Your task to perform on an android device: make emails show in primary in the gmail app Image 0: 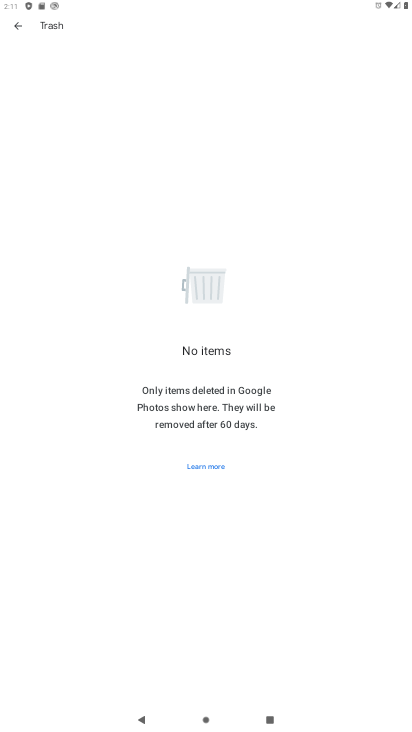
Step 0: press home button
Your task to perform on an android device: make emails show in primary in the gmail app Image 1: 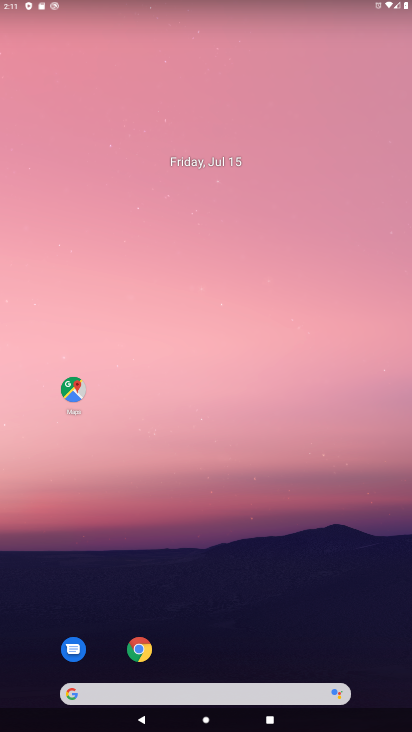
Step 1: drag from (191, 639) to (180, 112)
Your task to perform on an android device: make emails show in primary in the gmail app Image 2: 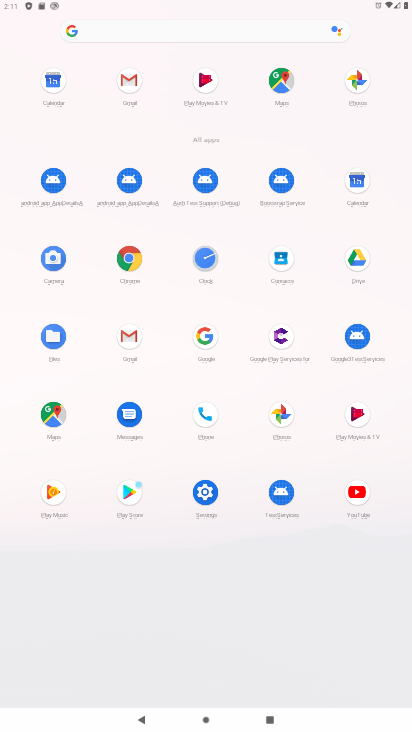
Step 2: click (137, 79)
Your task to perform on an android device: make emails show in primary in the gmail app Image 3: 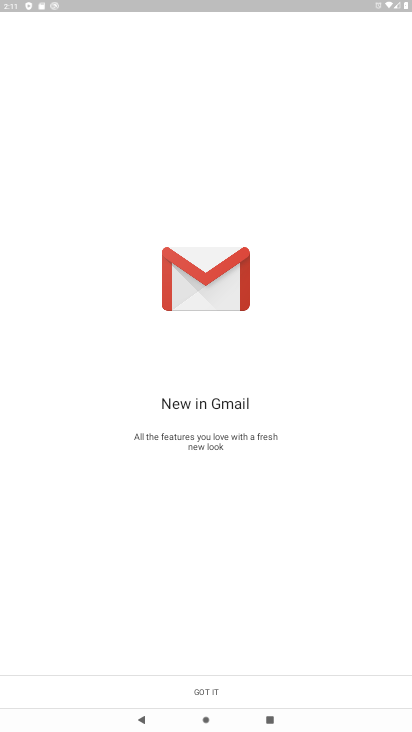
Step 3: click (206, 682)
Your task to perform on an android device: make emails show in primary in the gmail app Image 4: 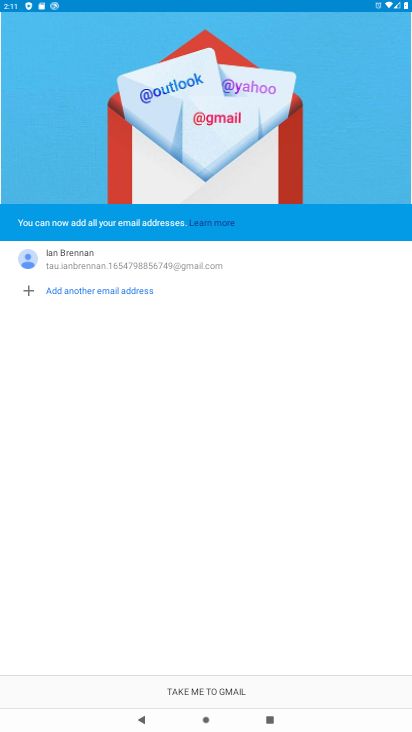
Step 4: click (191, 698)
Your task to perform on an android device: make emails show in primary in the gmail app Image 5: 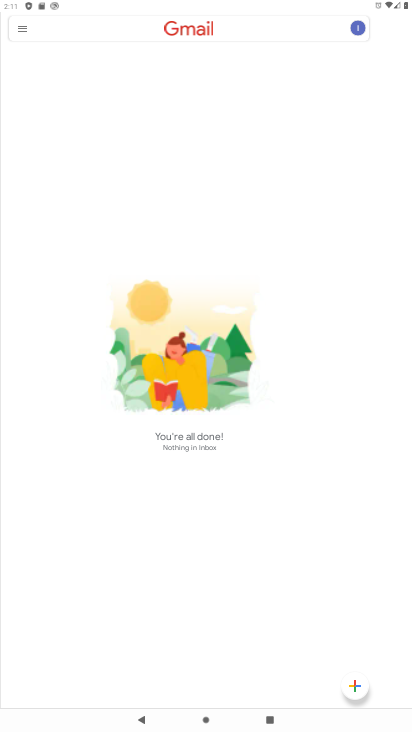
Step 5: click (27, 34)
Your task to perform on an android device: make emails show in primary in the gmail app Image 6: 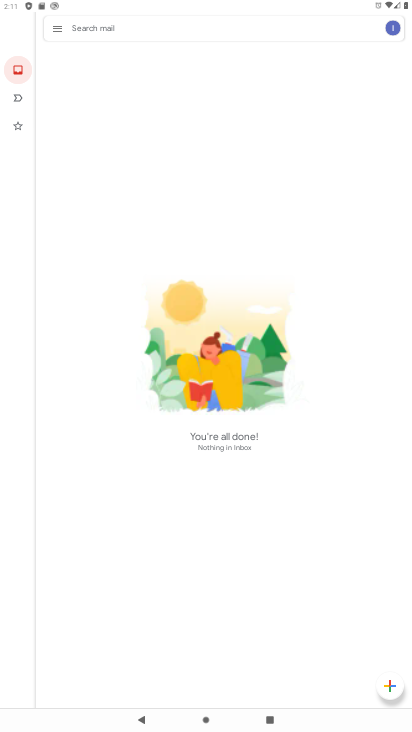
Step 6: click (57, 33)
Your task to perform on an android device: make emails show in primary in the gmail app Image 7: 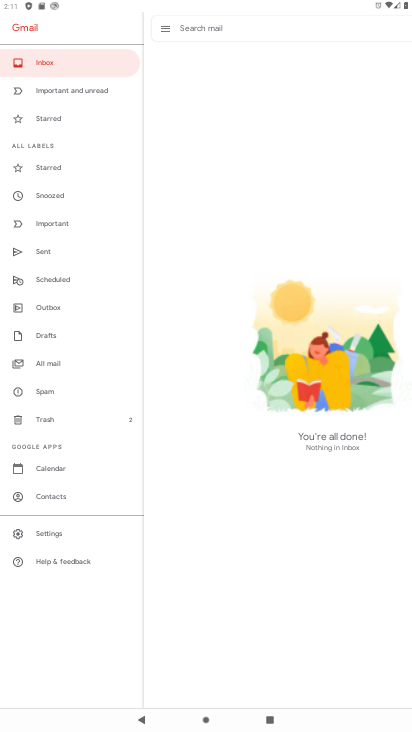
Step 7: task complete